Your task to perform on an android device: turn off notifications settings in the gmail app Image 0: 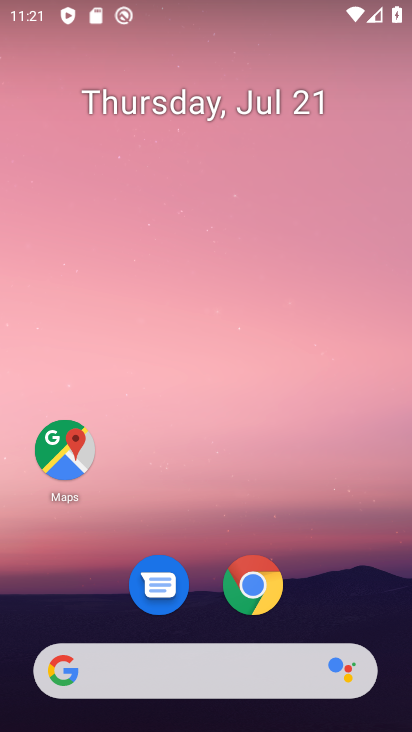
Step 0: press home button
Your task to perform on an android device: turn off notifications settings in the gmail app Image 1: 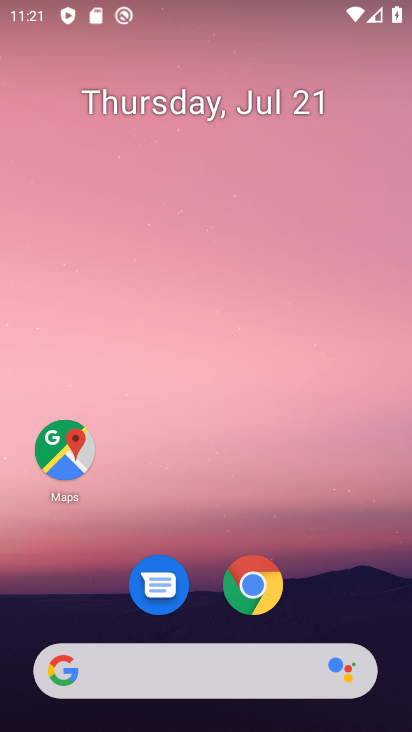
Step 1: drag from (165, 662) to (300, 41)
Your task to perform on an android device: turn off notifications settings in the gmail app Image 2: 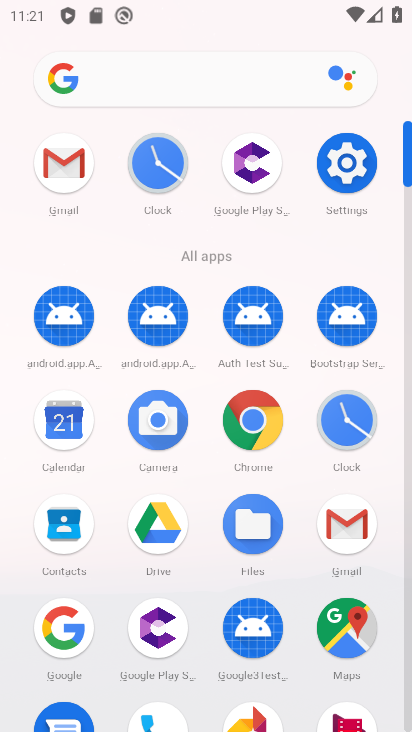
Step 2: click (55, 182)
Your task to perform on an android device: turn off notifications settings in the gmail app Image 3: 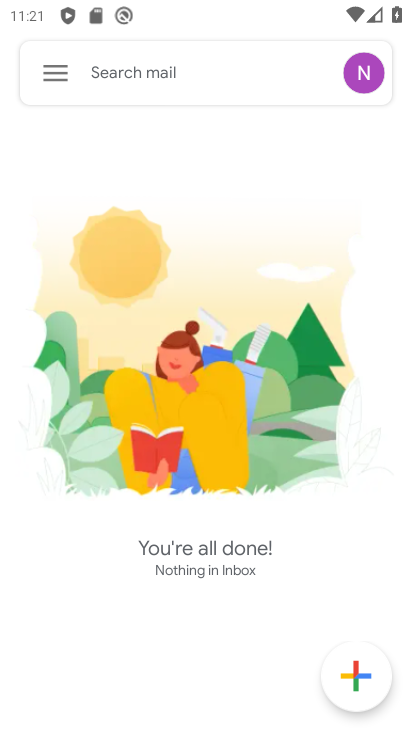
Step 3: click (42, 69)
Your task to perform on an android device: turn off notifications settings in the gmail app Image 4: 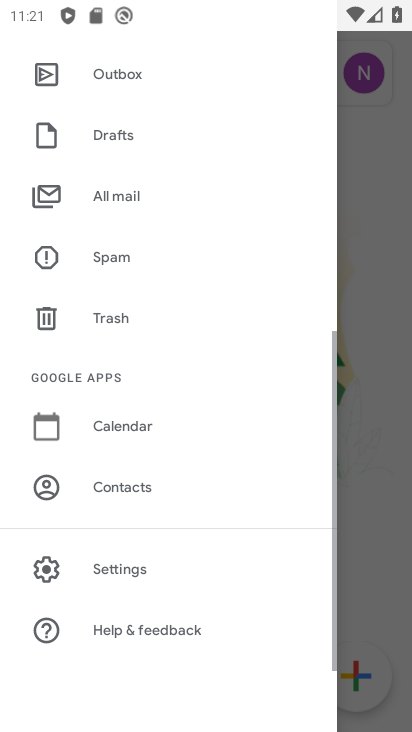
Step 4: click (145, 574)
Your task to perform on an android device: turn off notifications settings in the gmail app Image 5: 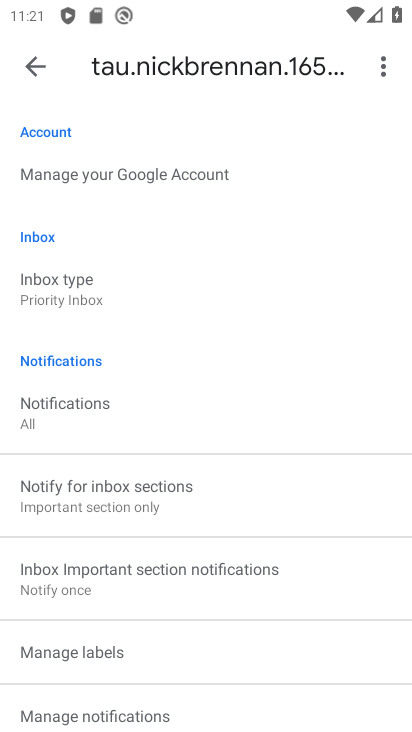
Step 5: click (80, 409)
Your task to perform on an android device: turn off notifications settings in the gmail app Image 6: 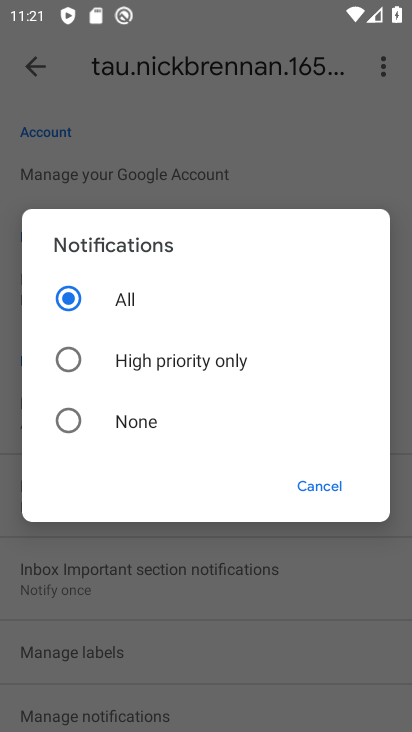
Step 6: click (62, 417)
Your task to perform on an android device: turn off notifications settings in the gmail app Image 7: 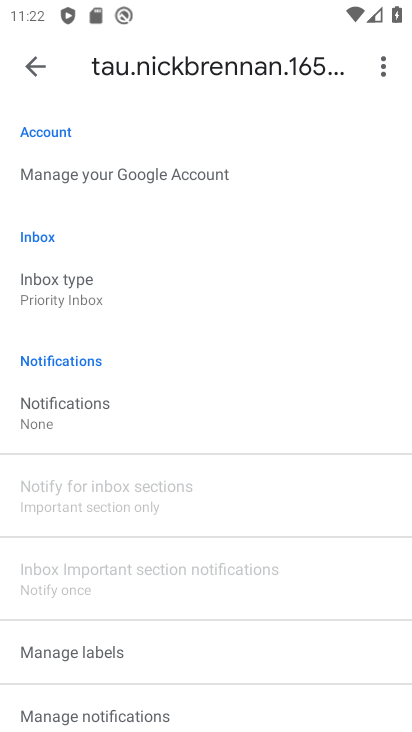
Step 7: task complete